Your task to perform on an android device: Open internet settings Image 0: 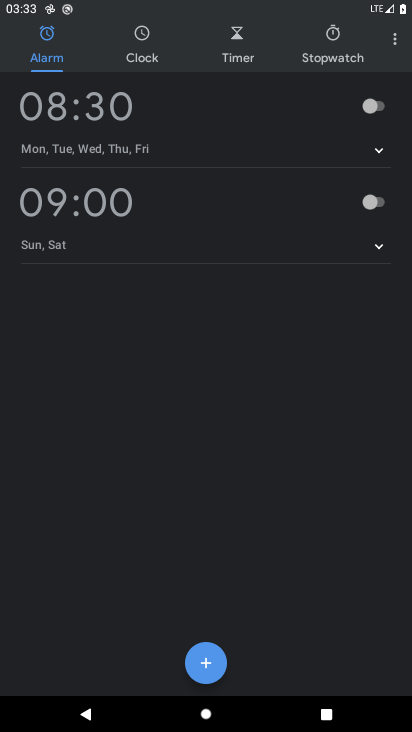
Step 0: press home button
Your task to perform on an android device: Open internet settings Image 1: 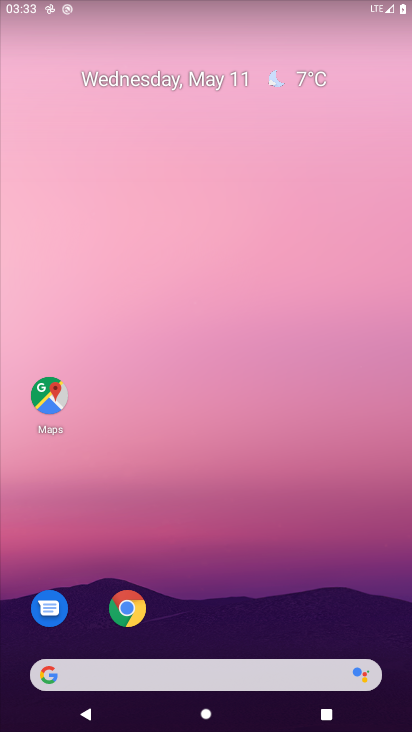
Step 1: drag from (232, 634) to (242, 89)
Your task to perform on an android device: Open internet settings Image 2: 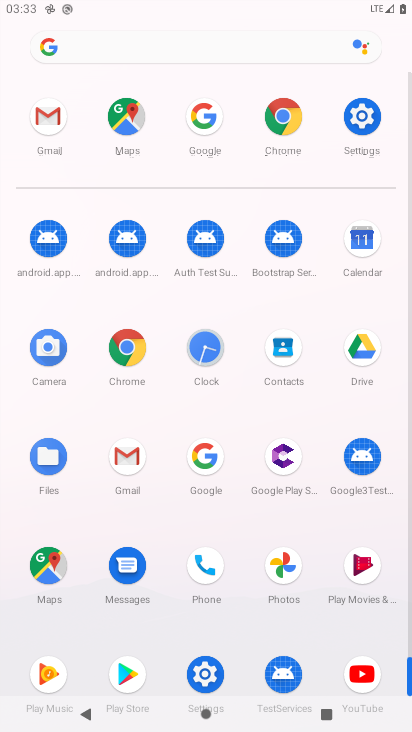
Step 2: click (364, 118)
Your task to perform on an android device: Open internet settings Image 3: 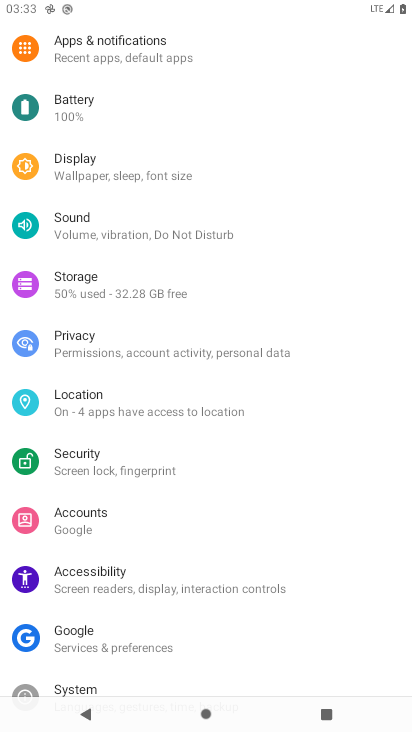
Step 3: drag from (129, 74) to (153, 662)
Your task to perform on an android device: Open internet settings Image 4: 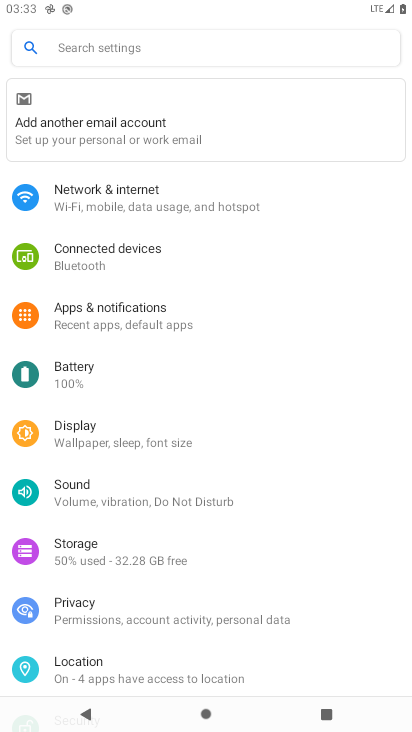
Step 4: click (144, 201)
Your task to perform on an android device: Open internet settings Image 5: 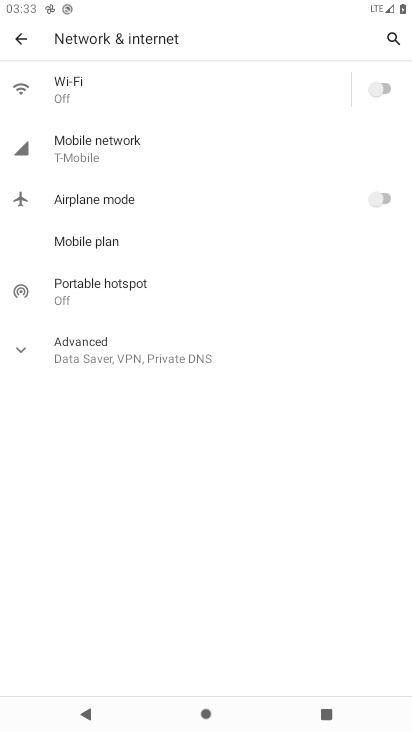
Step 5: click (35, 350)
Your task to perform on an android device: Open internet settings Image 6: 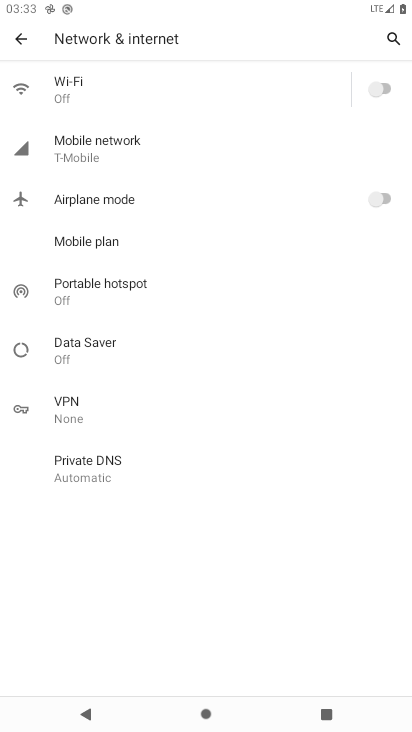
Step 6: task complete